Your task to perform on an android device: Open wifi settings Image 0: 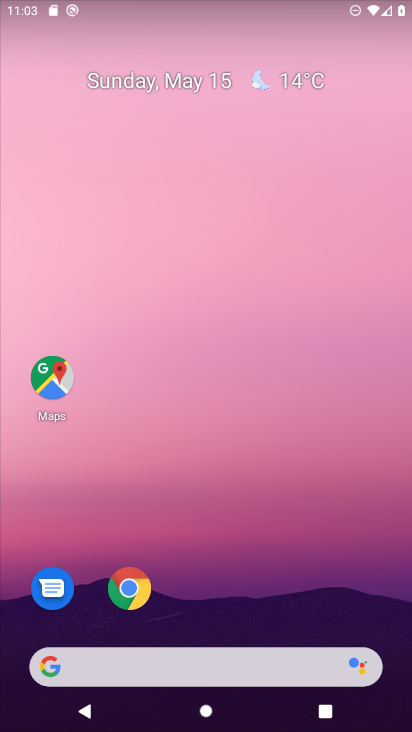
Step 0: drag from (255, 627) to (312, 156)
Your task to perform on an android device: Open wifi settings Image 1: 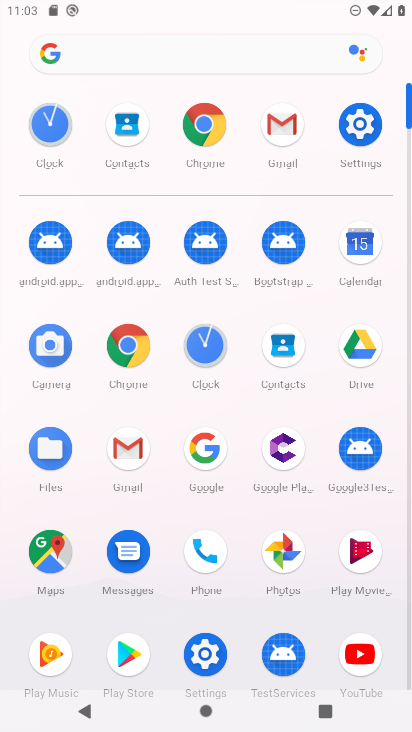
Step 1: click (206, 650)
Your task to perform on an android device: Open wifi settings Image 2: 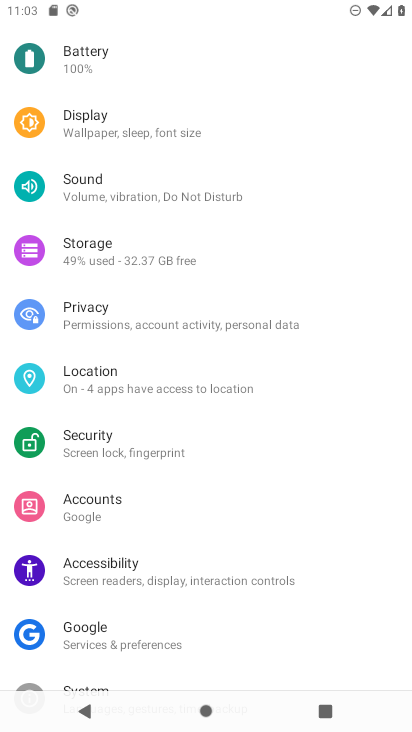
Step 2: drag from (180, 173) to (166, 383)
Your task to perform on an android device: Open wifi settings Image 3: 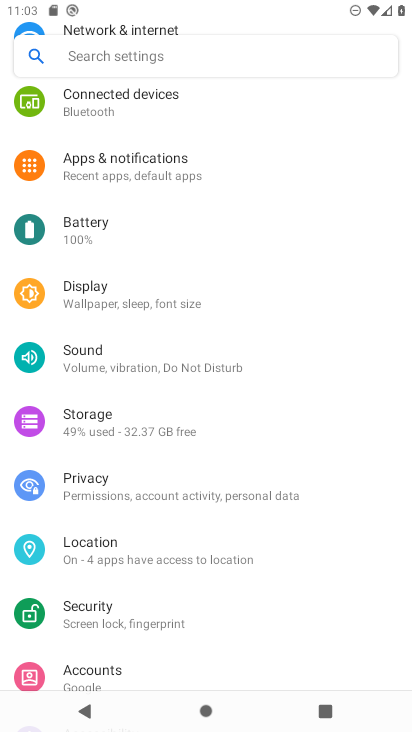
Step 3: drag from (141, 127) to (147, 337)
Your task to perform on an android device: Open wifi settings Image 4: 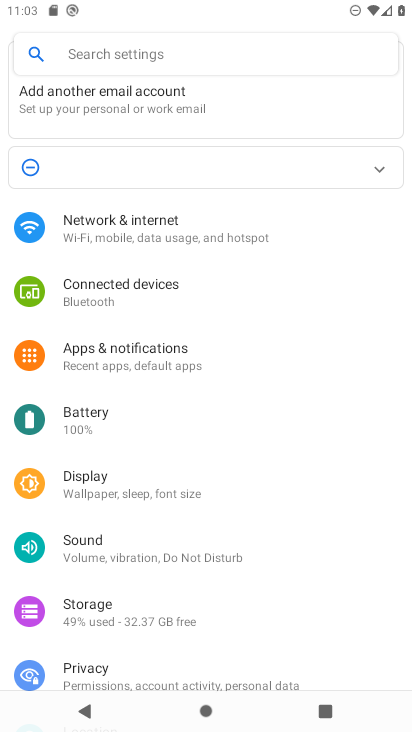
Step 4: click (129, 239)
Your task to perform on an android device: Open wifi settings Image 5: 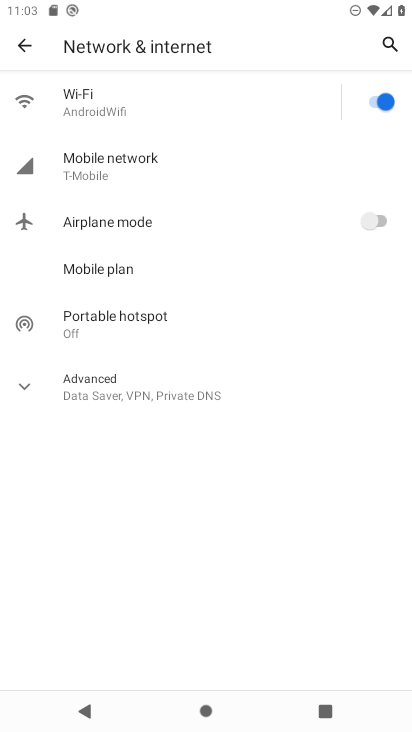
Step 5: click (131, 107)
Your task to perform on an android device: Open wifi settings Image 6: 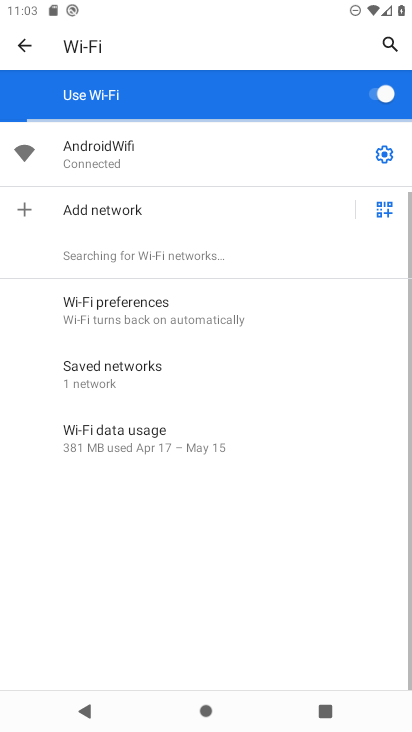
Step 6: task complete